Your task to perform on an android device: turn off notifications settings in the gmail app Image 0: 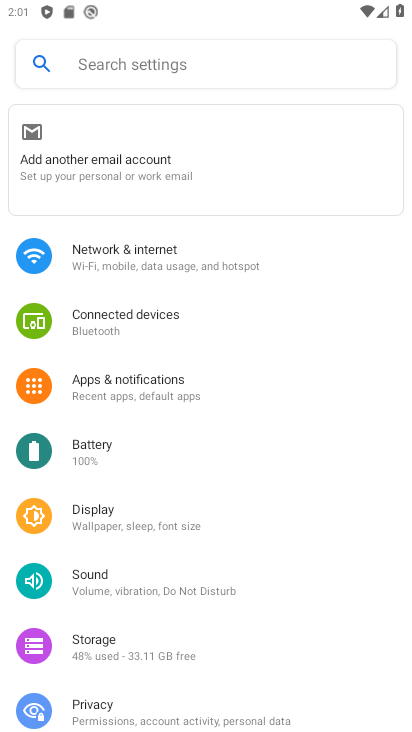
Step 0: press home button
Your task to perform on an android device: turn off notifications settings in the gmail app Image 1: 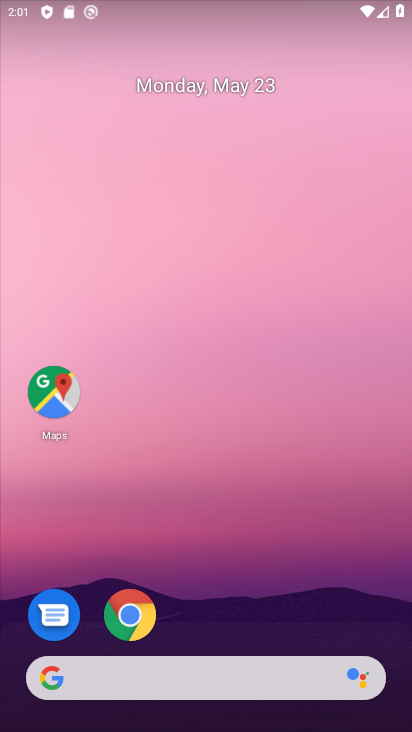
Step 1: drag from (308, 642) to (386, 5)
Your task to perform on an android device: turn off notifications settings in the gmail app Image 2: 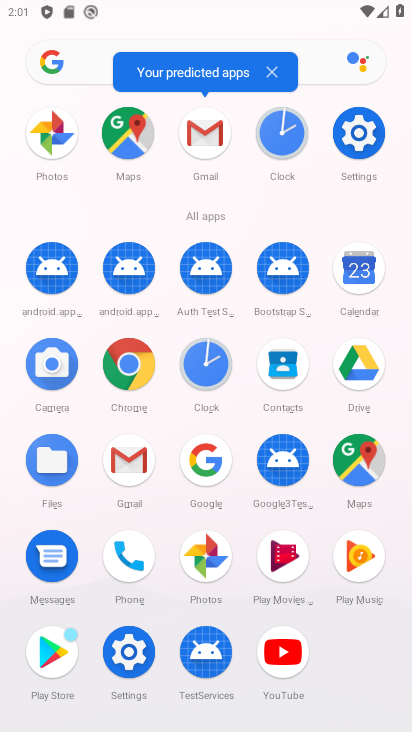
Step 2: click (195, 136)
Your task to perform on an android device: turn off notifications settings in the gmail app Image 3: 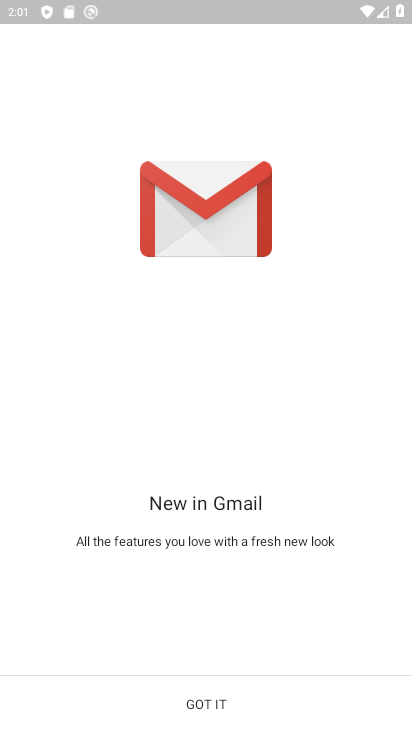
Step 3: click (205, 706)
Your task to perform on an android device: turn off notifications settings in the gmail app Image 4: 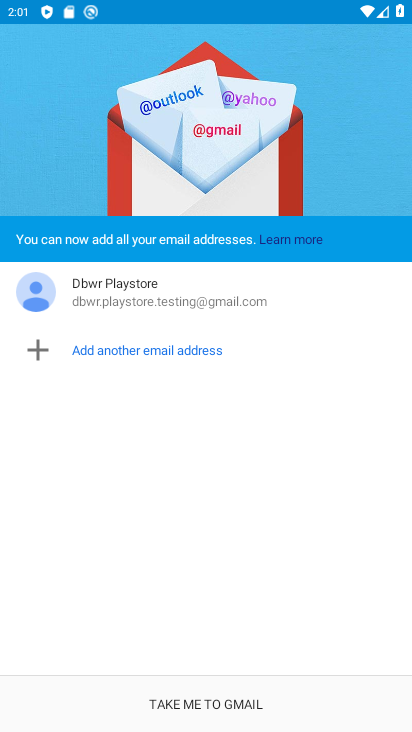
Step 4: click (186, 699)
Your task to perform on an android device: turn off notifications settings in the gmail app Image 5: 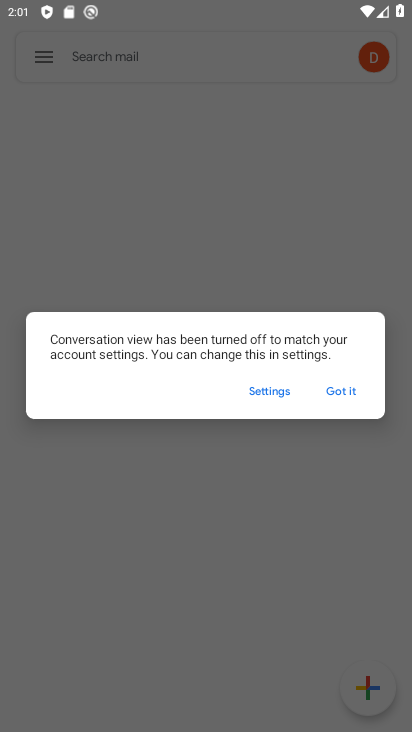
Step 5: click (337, 391)
Your task to perform on an android device: turn off notifications settings in the gmail app Image 6: 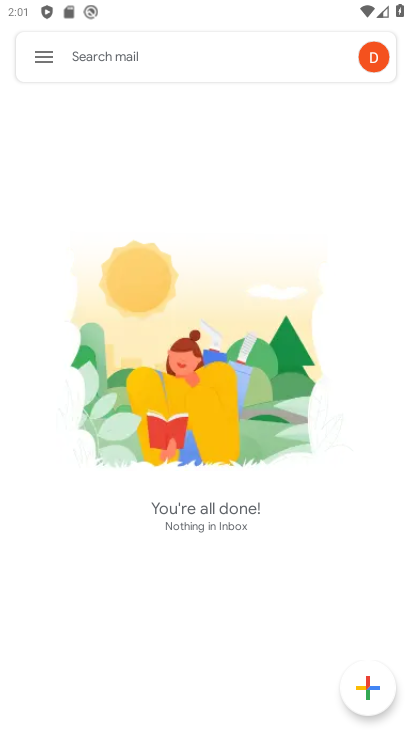
Step 6: click (33, 51)
Your task to perform on an android device: turn off notifications settings in the gmail app Image 7: 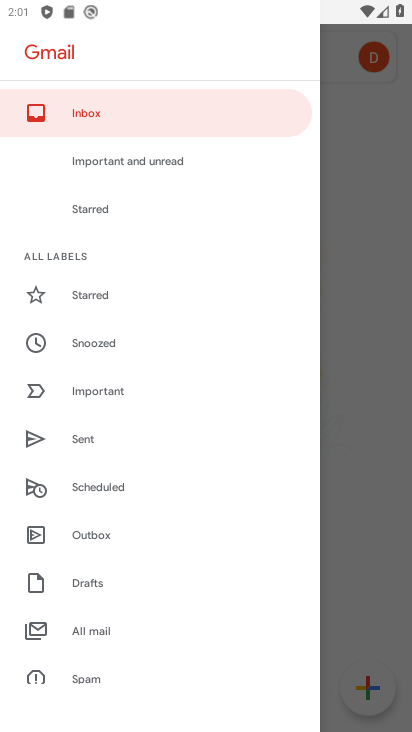
Step 7: drag from (163, 578) to (170, 181)
Your task to perform on an android device: turn off notifications settings in the gmail app Image 8: 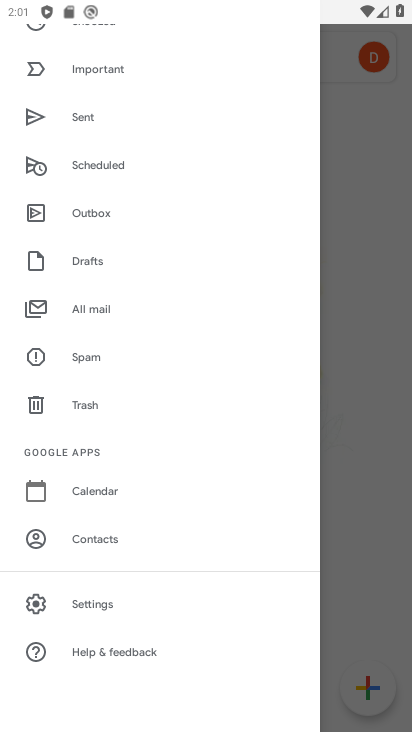
Step 8: click (109, 607)
Your task to perform on an android device: turn off notifications settings in the gmail app Image 9: 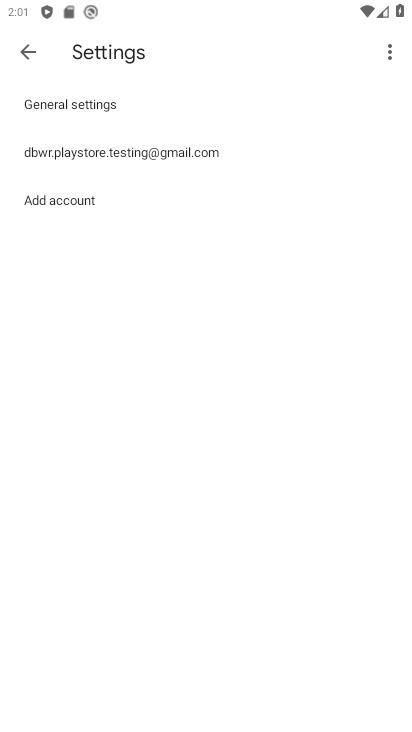
Step 9: click (76, 105)
Your task to perform on an android device: turn off notifications settings in the gmail app Image 10: 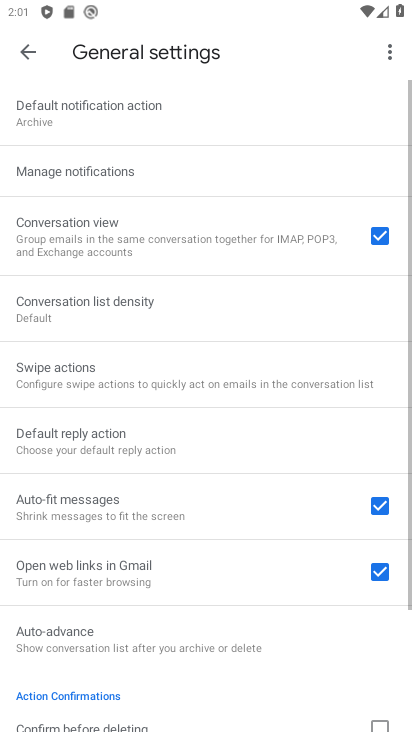
Step 10: click (75, 171)
Your task to perform on an android device: turn off notifications settings in the gmail app Image 11: 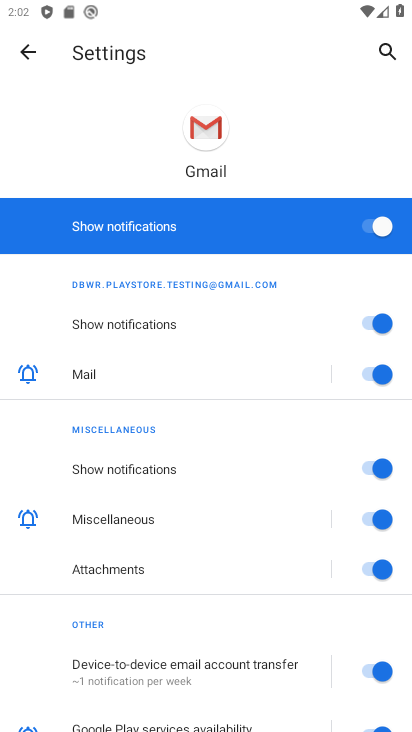
Step 11: click (377, 225)
Your task to perform on an android device: turn off notifications settings in the gmail app Image 12: 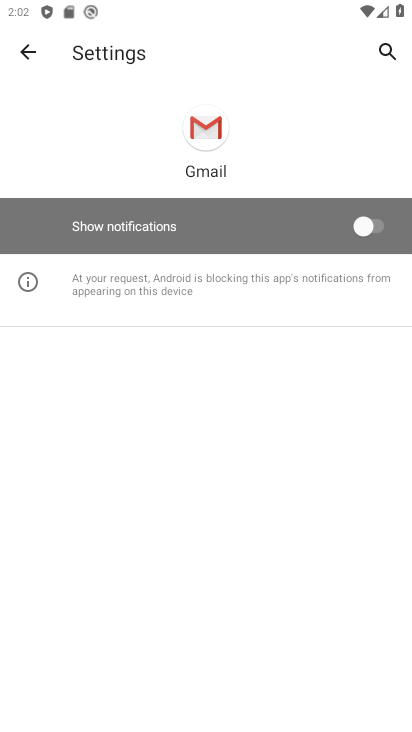
Step 12: task complete